Your task to perform on an android device: set the timer Image 0: 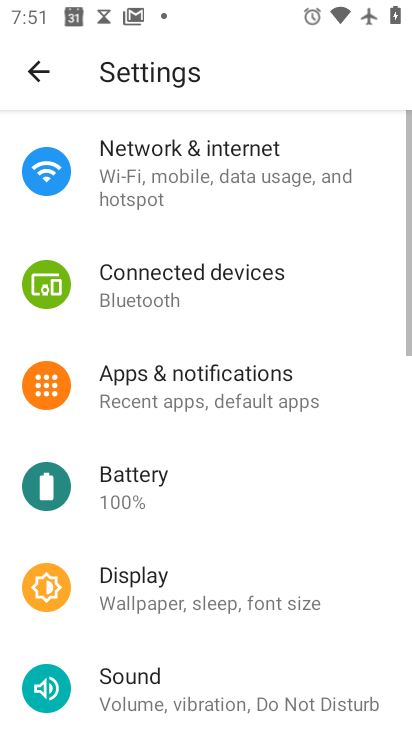
Step 0: press home button
Your task to perform on an android device: set the timer Image 1: 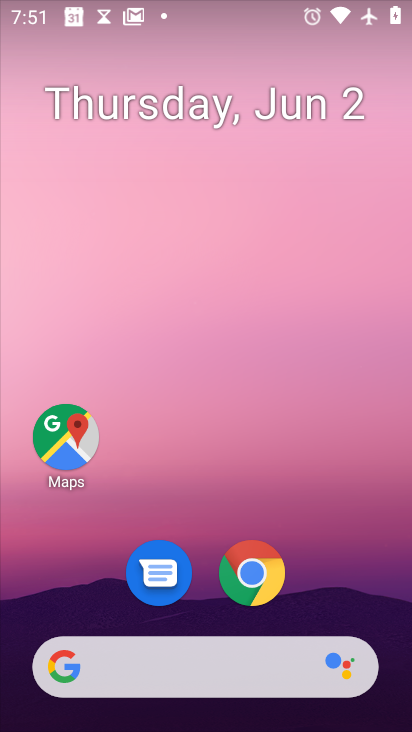
Step 1: drag from (184, 669) to (331, 134)
Your task to perform on an android device: set the timer Image 2: 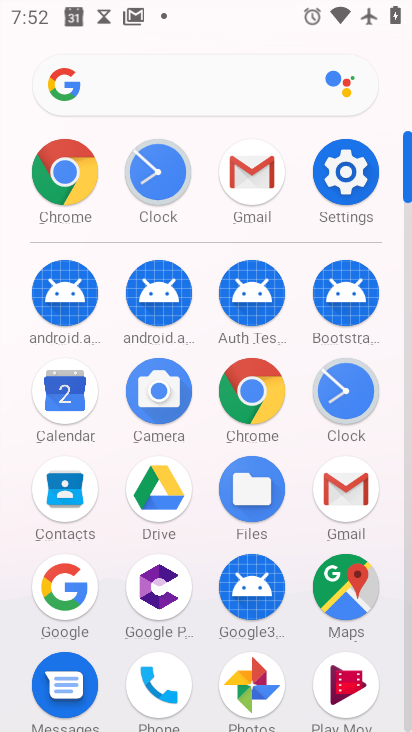
Step 2: click (157, 181)
Your task to perform on an android device: set the timer Image 3: 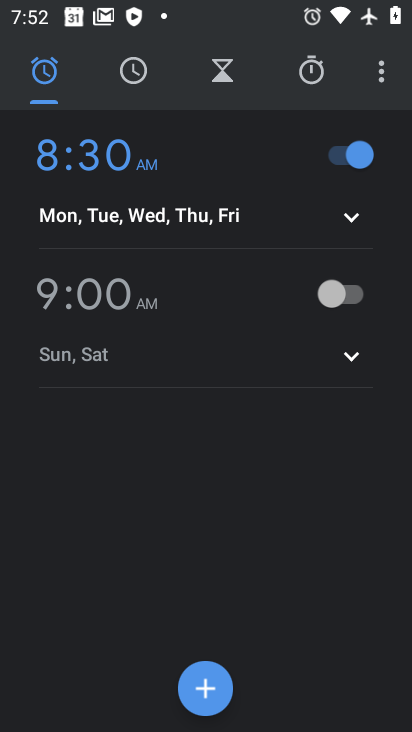
Step 3: click (228, 71)
Your task to perform on an android device: set the timer Image 4: 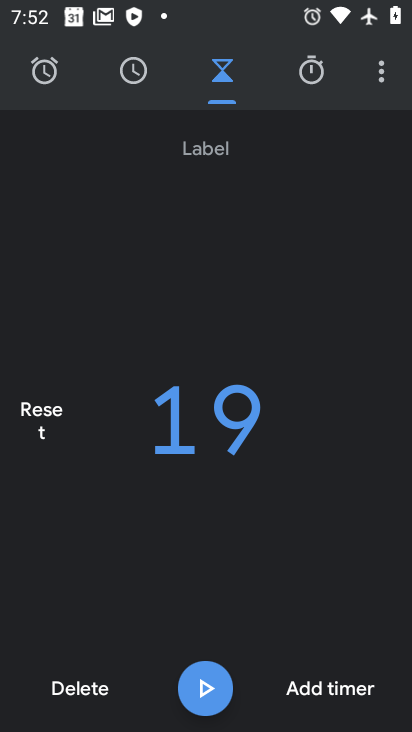
Step 4: click (60, 683)
Your task to perform on an android device: set the timer Image 5: 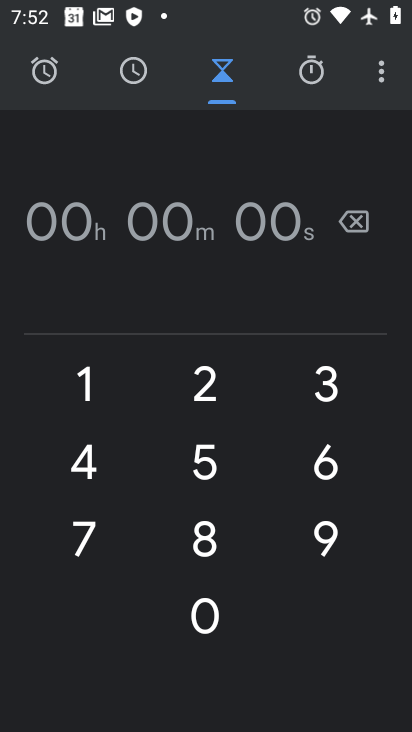
Step 5: click (93, 392)
Your task to perform on an android device: set the timer Image 6: 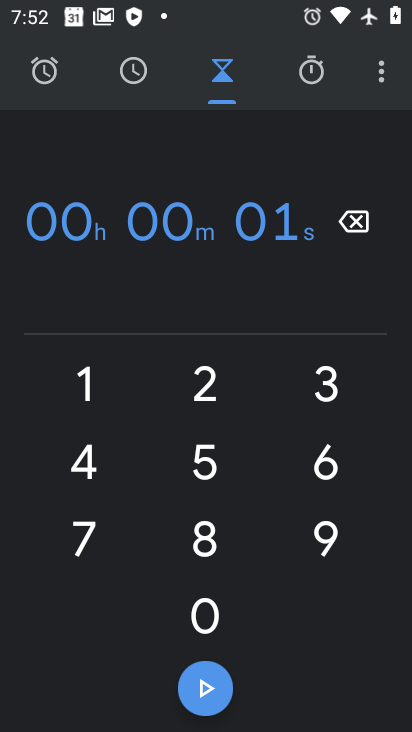
Step 6: click (212, 461)
Your task to perform on an android device: set the timer Image 7: 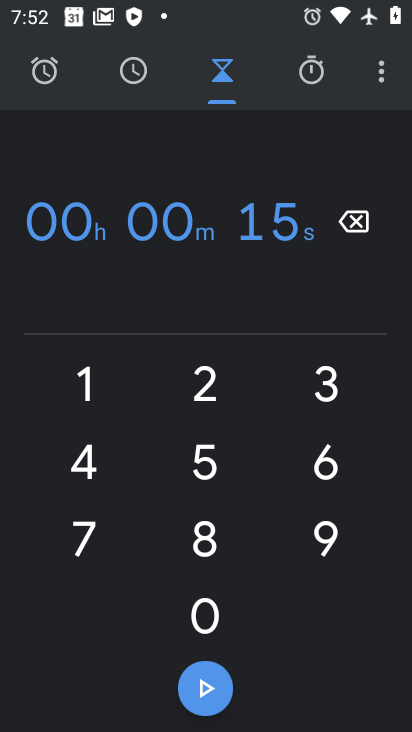
Step 7: click (211, 690)
Your task to perform on an android device: set the timer Image 8: 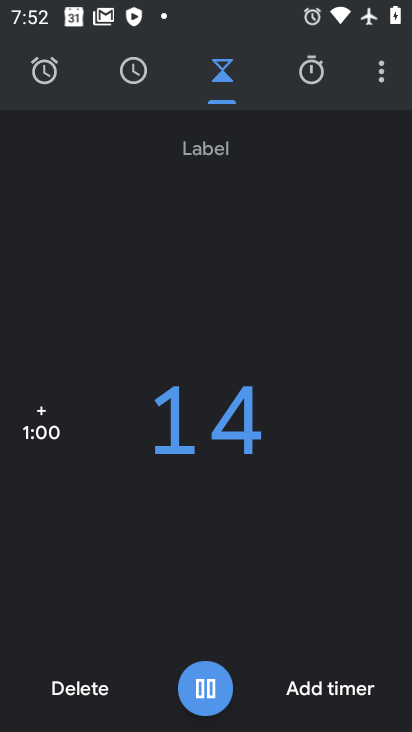
Step 8: click (209, 687)
Your task to perform on an android device: set the timer Image 9: 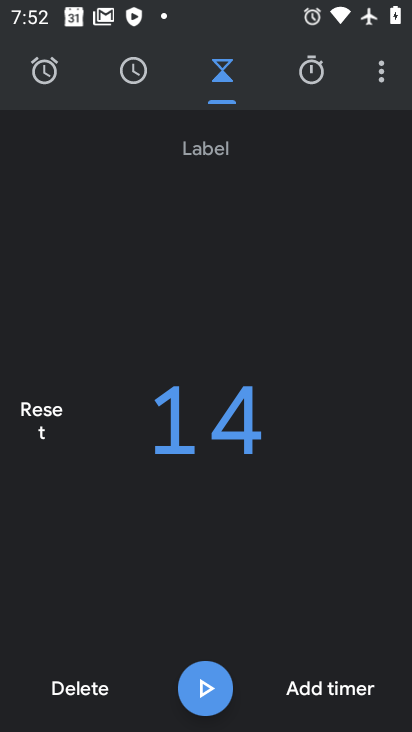
Step 9: task complete